Your task to perform on an android device: Open settings Image 0: 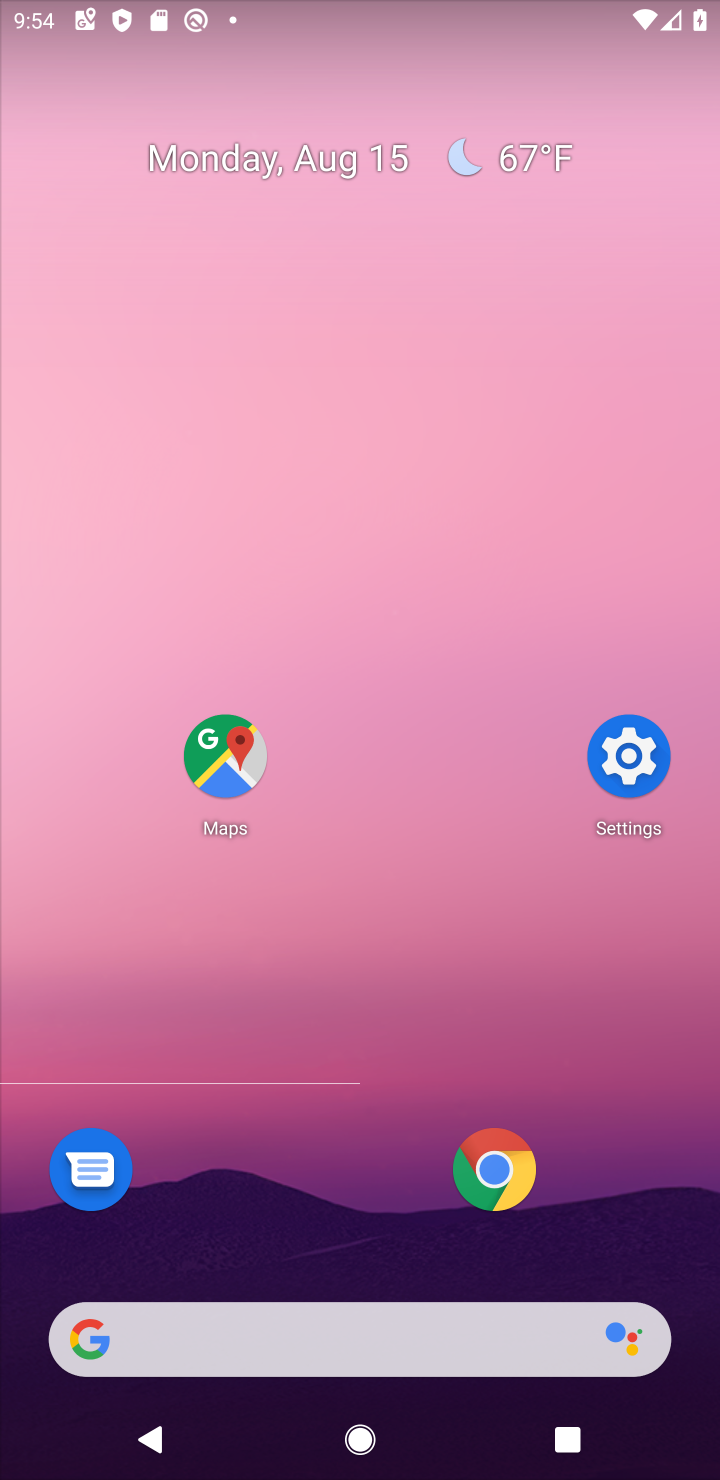
Step 0: click (628, 753)
Your task to perform on an android device: Open settings Image 1: 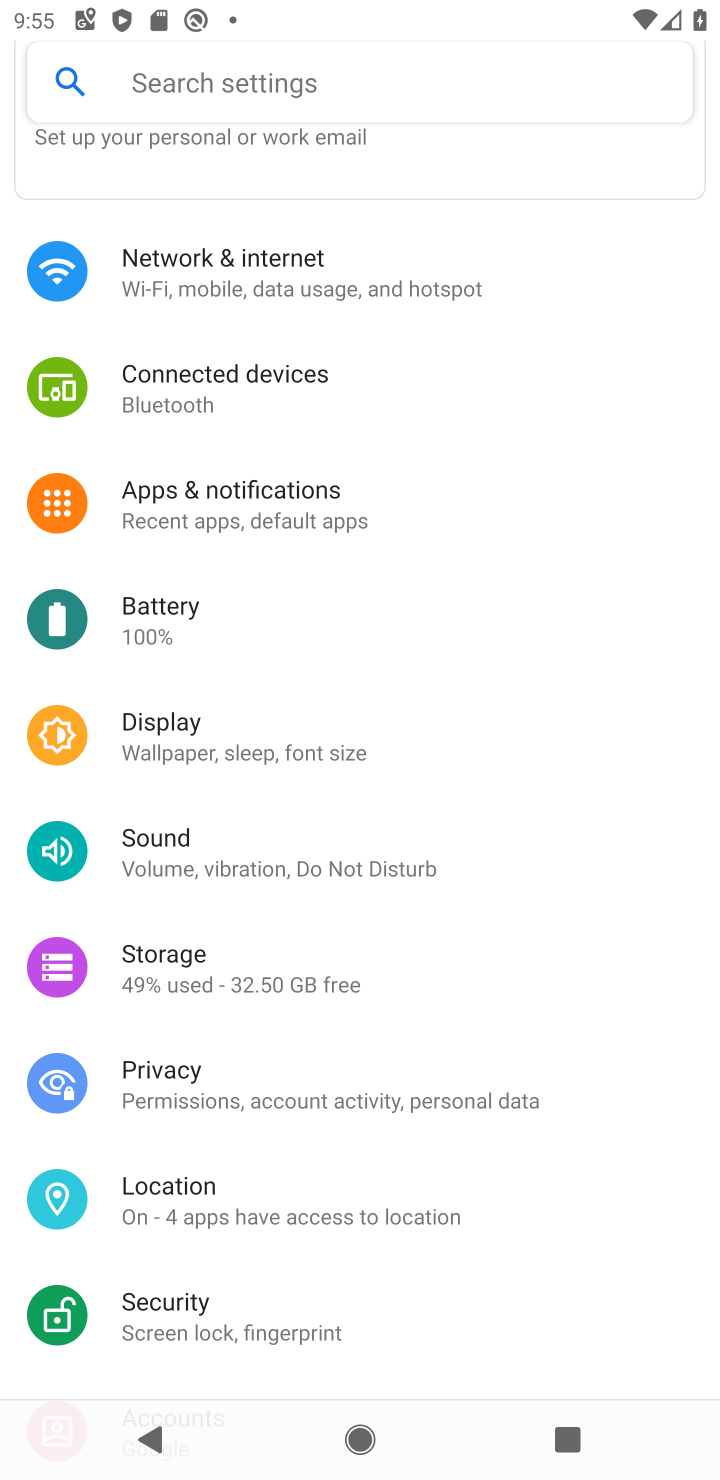
Step 1: task complete